Your task to perform on an android device: Find coffee shops on Maps Image 0: 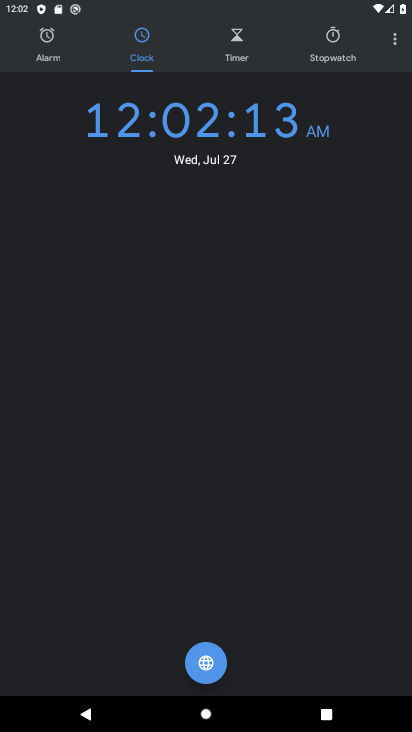
Step 0: press home button
Your task to perform on an android device: Find coffee shops on Maps Image 1: 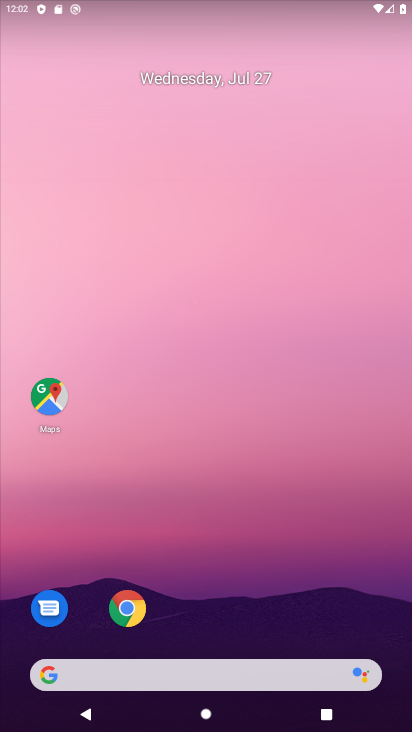
Step 1: drag from (330, 600) to (322, 82)
Your task to perform on an android device: Find coffee shops on Maps Image 2: 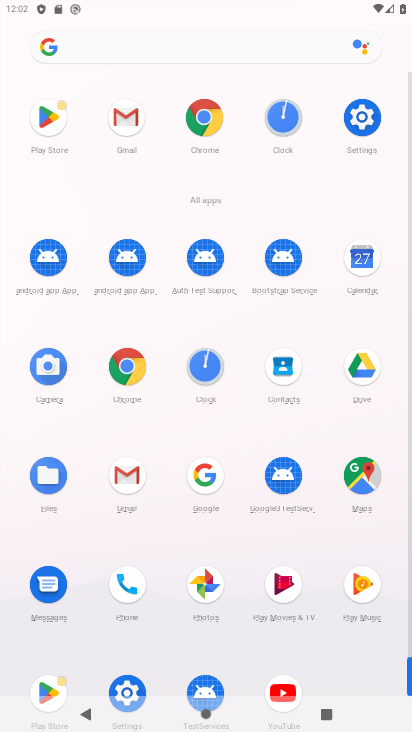
Step 2: click (363, 480)
Your task to perform on an android device: Find coffee shops on Maps Image 3: 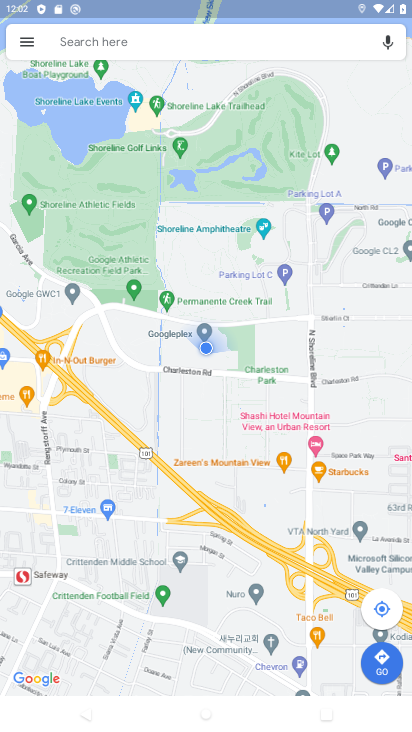
Step 3: click (190, 35)
Your task to perform on an android device: Find coffee shops on Maps Image 4: 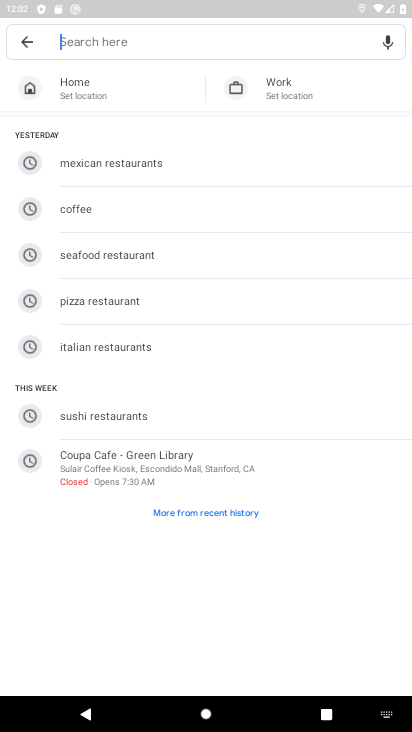
Step 4: type "coffee shops"
Your task to perform on an android device: Find coffee shops on Maps Image 5: 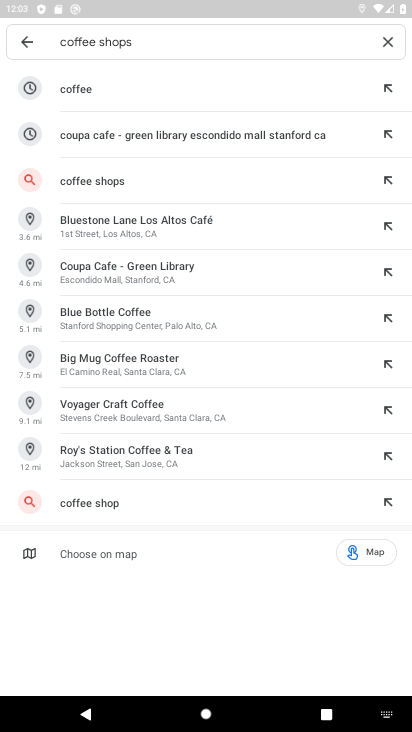
Step 5: click (168, 186)
Your task to perform on an android device: Find coffee shops on Maps Image 6: 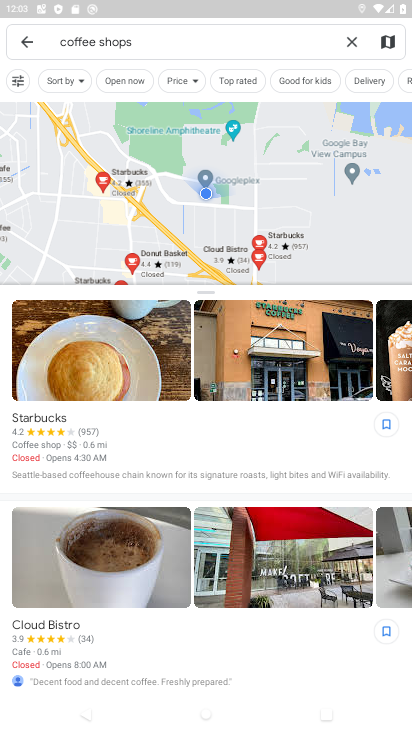
Step 6: task complete